Your task to perform on an android device: toggle improve location accuracy Image 0: 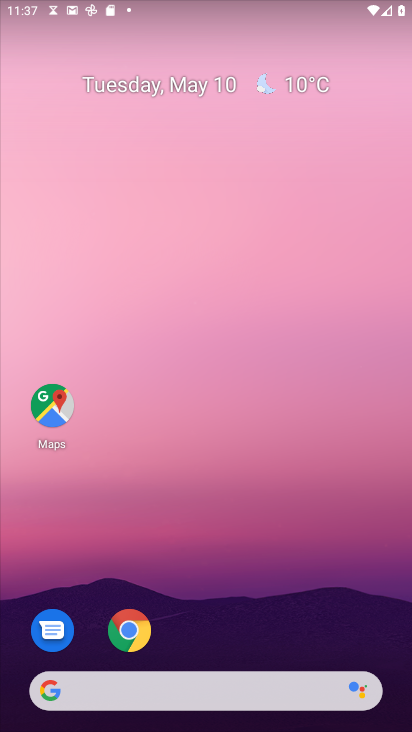
Step 0: drag from (272, 601) to (258, 80)
Your task to perform on an android device: toggle improve location accuracy Image 1: 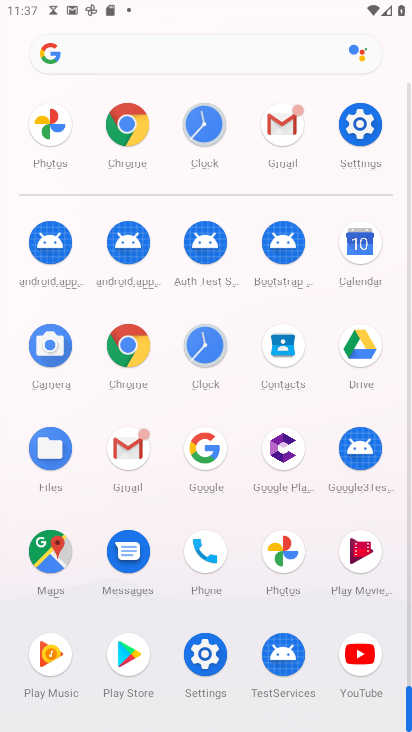
Step 1: click (365, 117)
Your task to perform on an android device: toggle improve location accuracy Image 2: 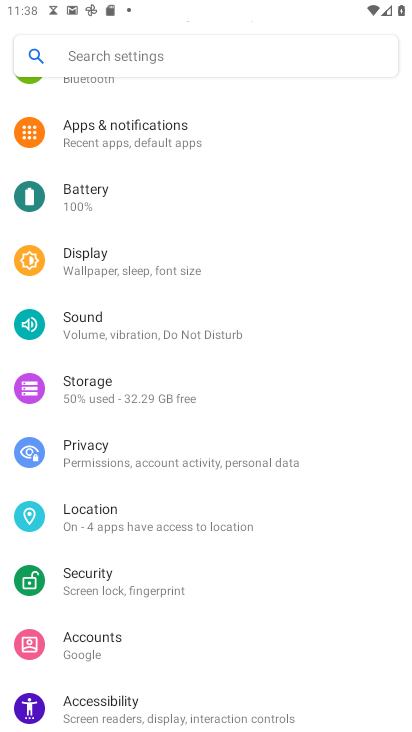
Step 2: click (163, 534)
Your task to perform on an android device: toggle improve location accuracy Image 3: 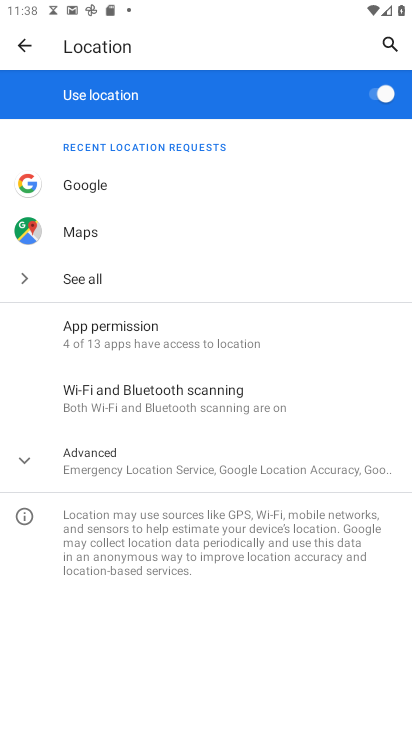
Step 3: click (292, 464)
Your task to perform on an android device: toggle improve location accuracy Image 4: 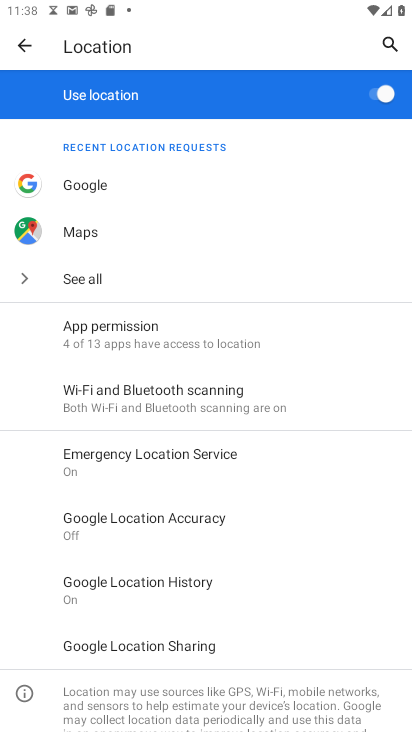
Step 4: click (190, 534)
Your task to perform on an android device: toggle improve location accuracy Image 5: 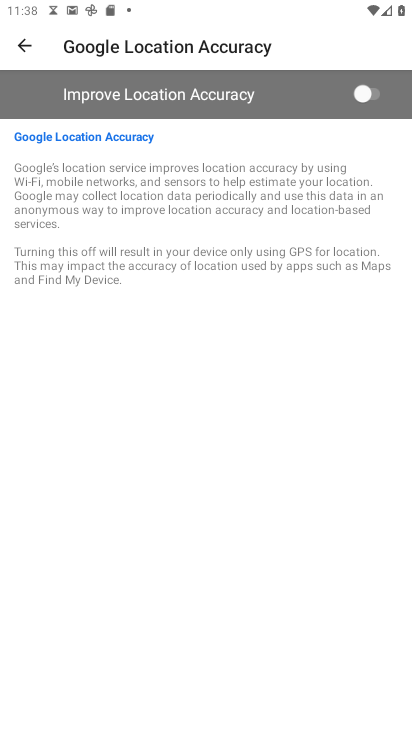
Step 5: click (373, 94)
Your task to perform on an android device: toggle improve location accuracy Image 6: 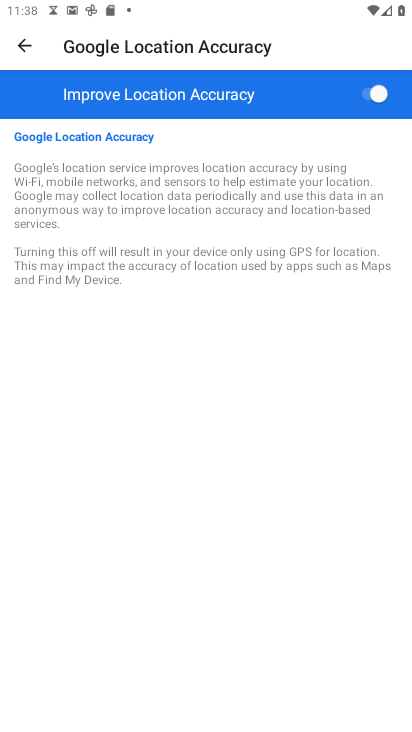
Step 6: task complete